Your task to perform on an android device: Search for "rayovac triple a" on walmart, select the first entry, and add it to the cart. Image 0: 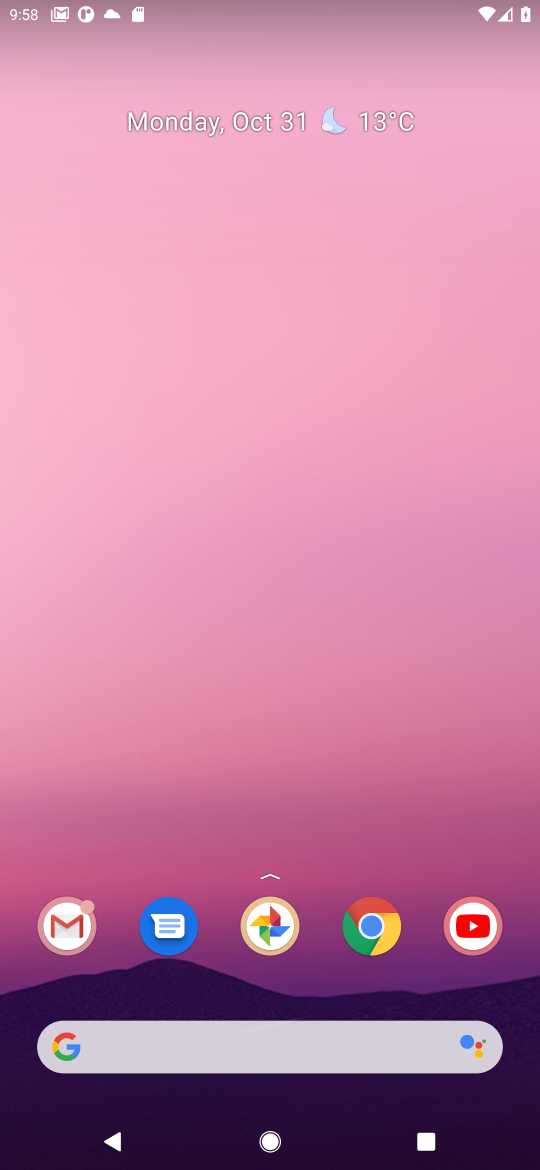
Step 0: click (378, 934)
Your task to perform on an android device: Search for "rayovac triple a" on walmart, select the first entry, and add it to the cart. Image 1: 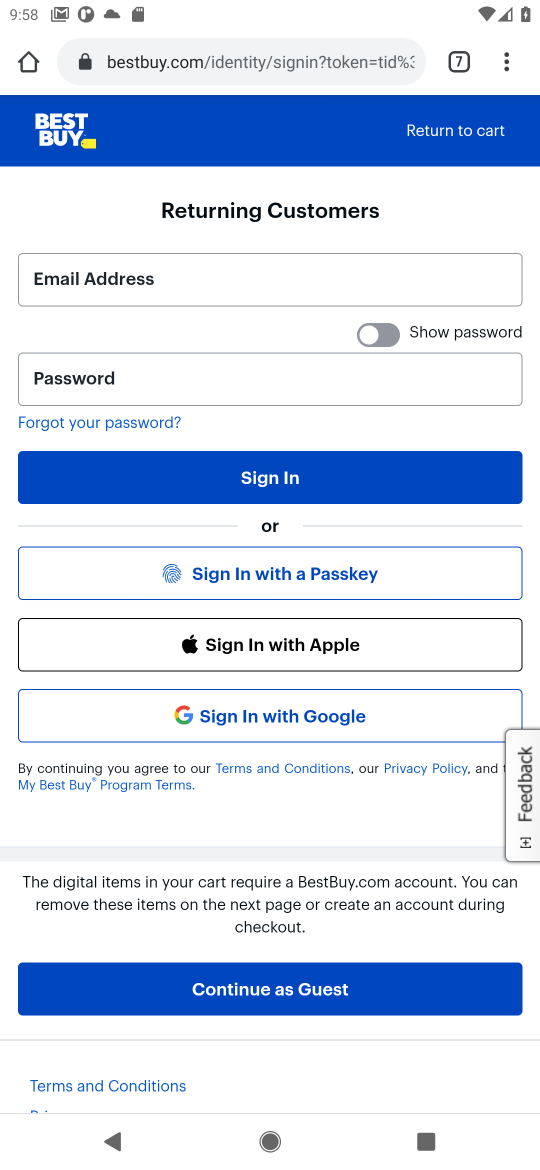
Step 1: click (461, 65)
Your task to perform on an android device: Search for "rayovac triple a" on walmart, select the first entry, and add it to the cart. Image 2: 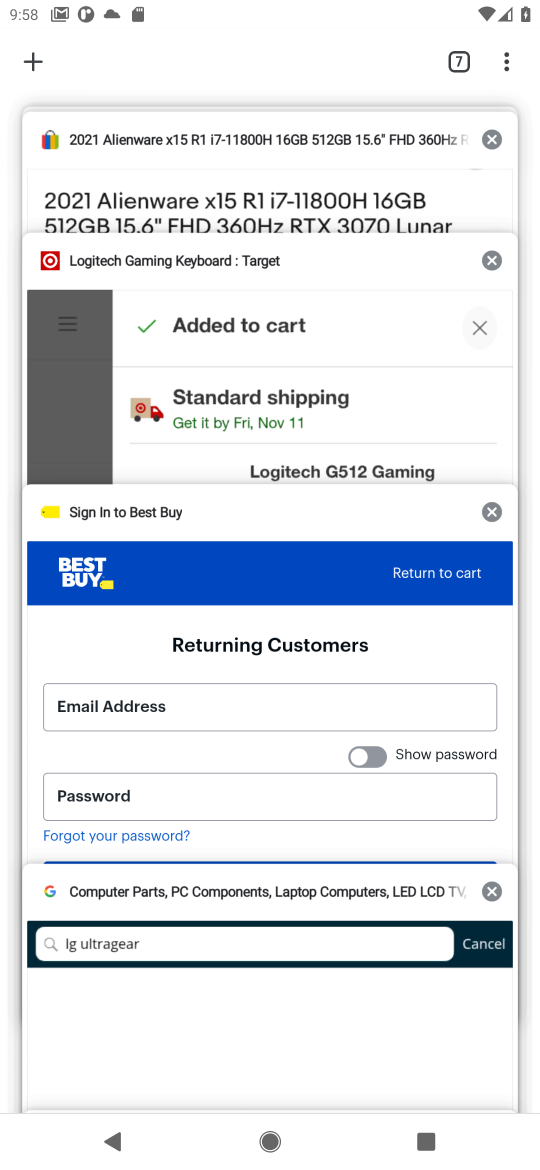
Step 2: click (181, 624)
Your task to perform on an android device: Search for "rayovac triple a" on walmart, select the first entry, and add it to the cart. Image 3: 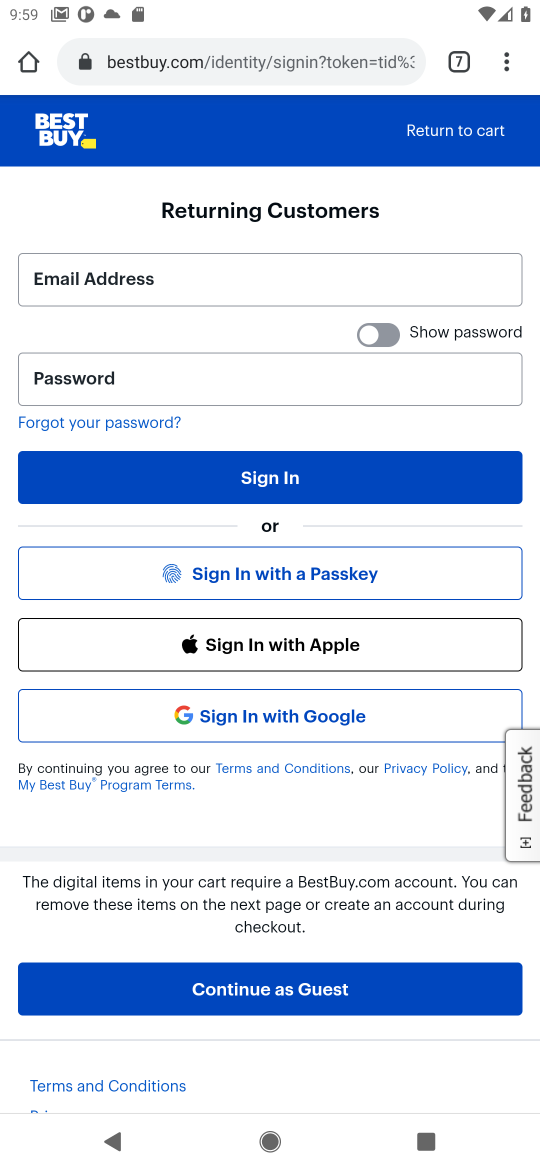
Step 3: click (462, 61)
Your task to perform on an android device: Search for "rayovac triple a" on walmart, select the first entry, and add it to the cart. Image 4: 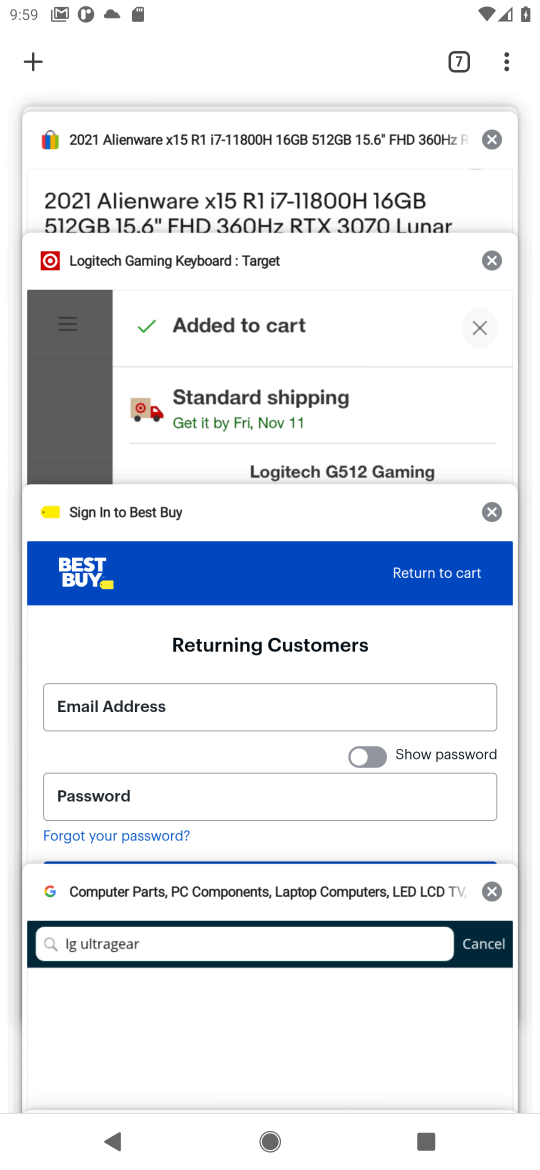
Step 4: drag from (291, 183) to (297, 630)
Your task to perform on an android device: Search for "rayovac triple a" on walmart, select the first entry, and add it to the cart. Image 5: 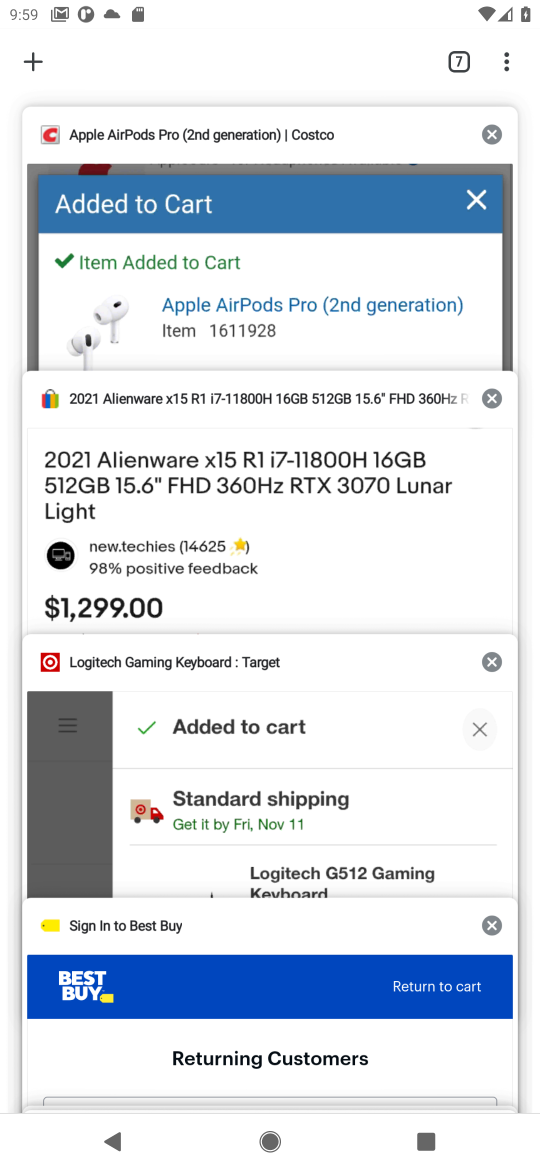
Step 5: click (31, 61)
Your task to perform on an android device: Search for "rayovac triple a" on walmart, select the first entry, and add it to the cart. Image 6: 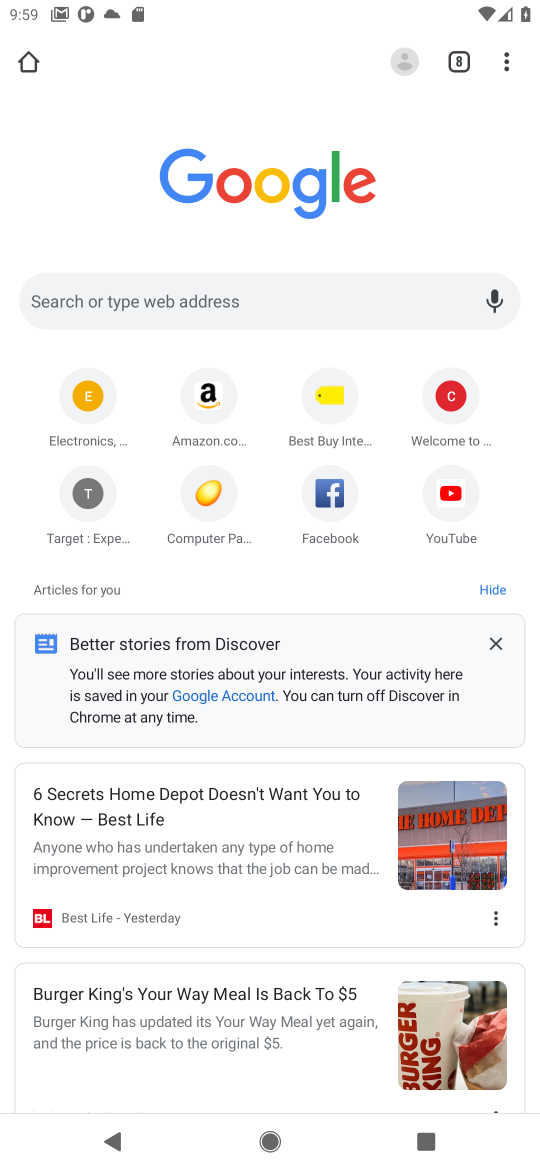
Step 6: click (107, 301)
Your task to perform on an android device: Search for "rayovac triple a" on walmart, select the first entry, and add it to the cart. Image 7: 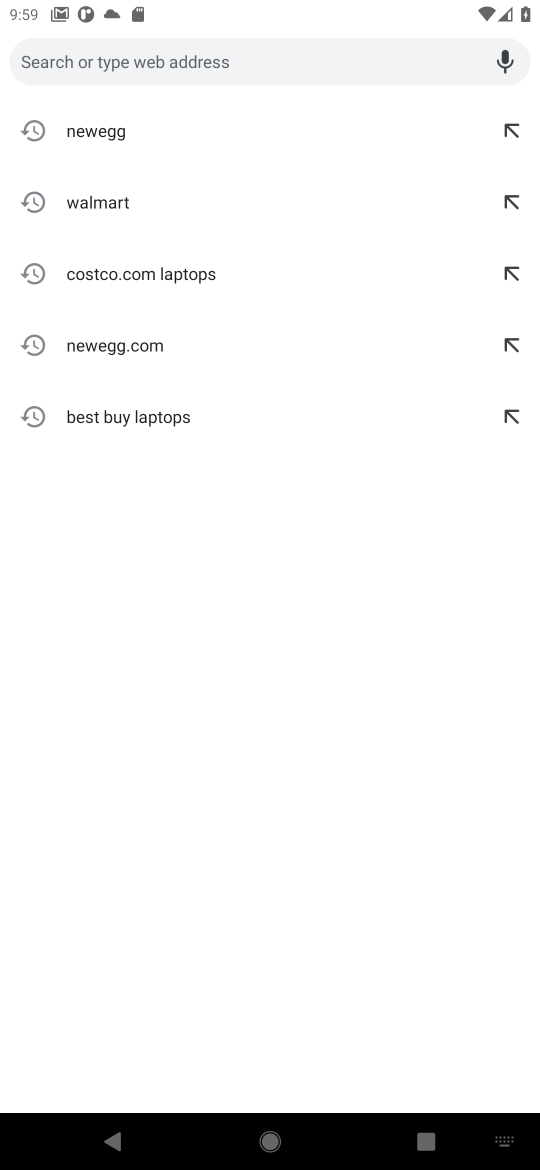
Step 7: click (105, 207)
Your task to perform on an android device: Search for "rayovac triple a" on walmart, select the first entry, and add it to the cart. Image 8: 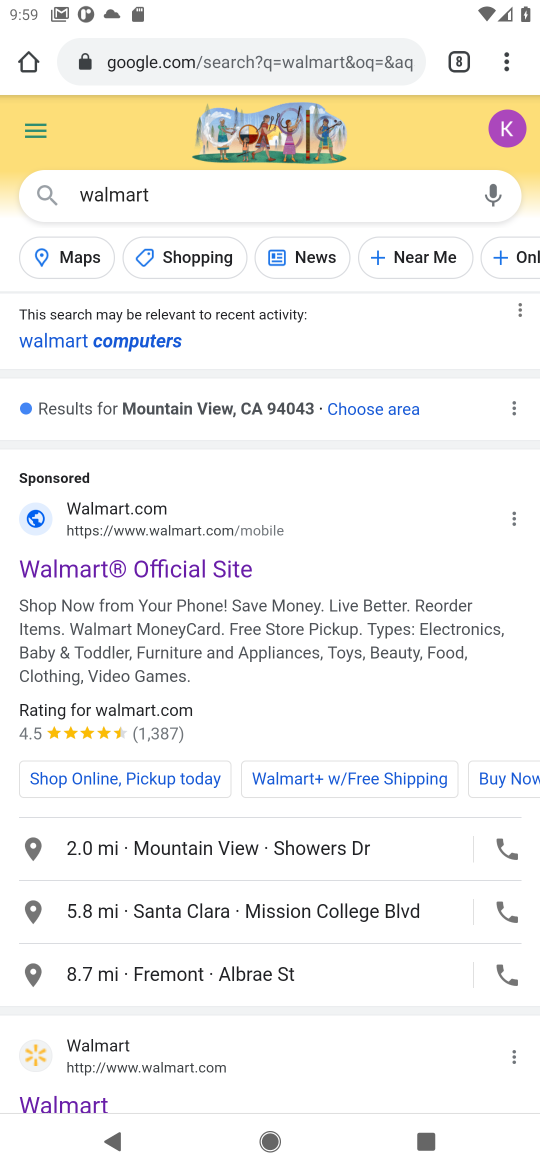
Step 8: click (65, 1099)
Your task to perform on an android device: Search for "rayovac triple a" on walmart, select the first entry, and add it to the cart. Image 9: 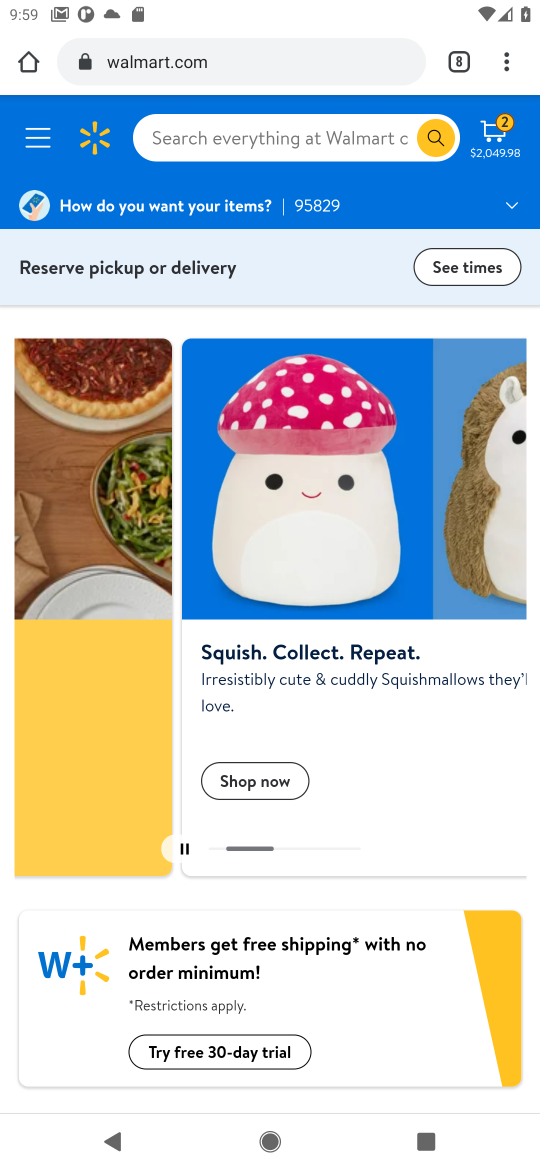
Step 9: click (346, 137)
Your task to perform on an android device: Search for "rayovac triple a" on walmart, select the first entry, and add it to the cart. Image 10: 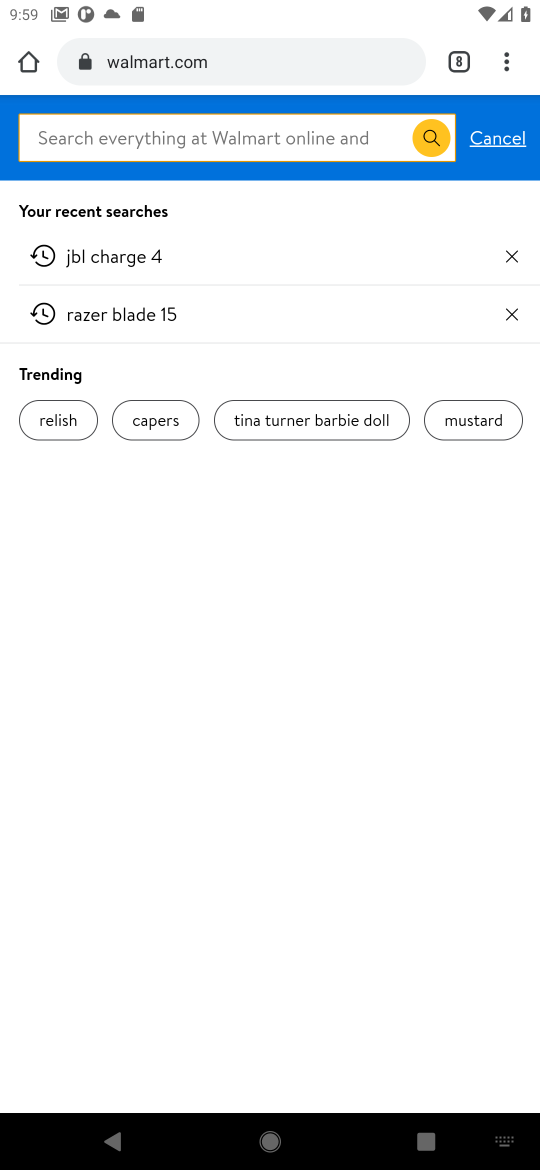
Step 10: type "rayovac triple a"
Your task to perform on an android device: Search for "rayovac triple a" on walmart, select the first entry, and add it to the cart. Image 11: 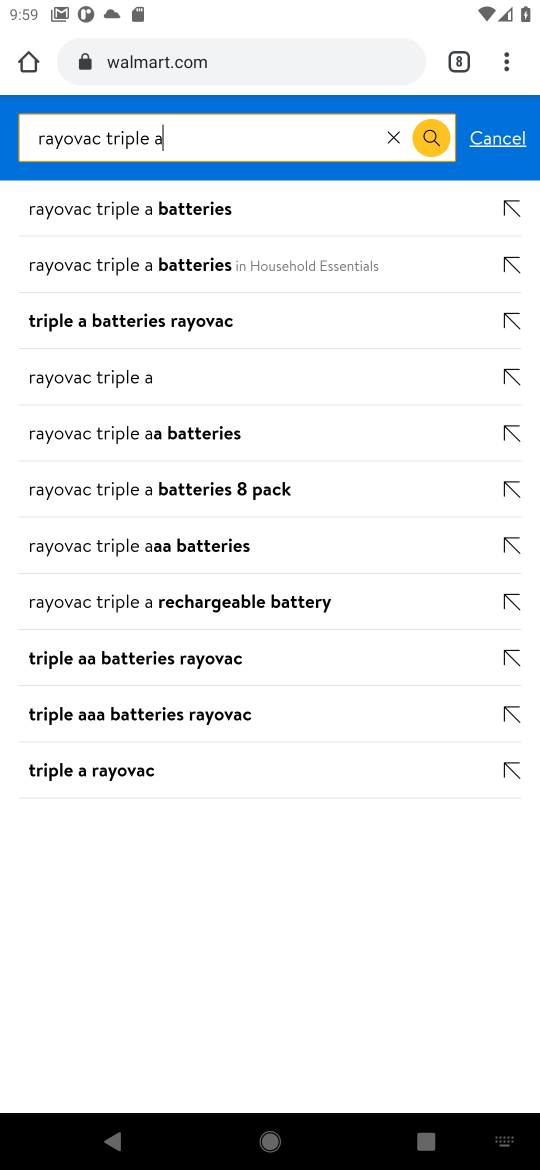
Step 11: click (203, 265)
Your task to perform on an android device: Search for "rayovac triple a" on walmart, select the first entry, and add it to the cart. Image 12: 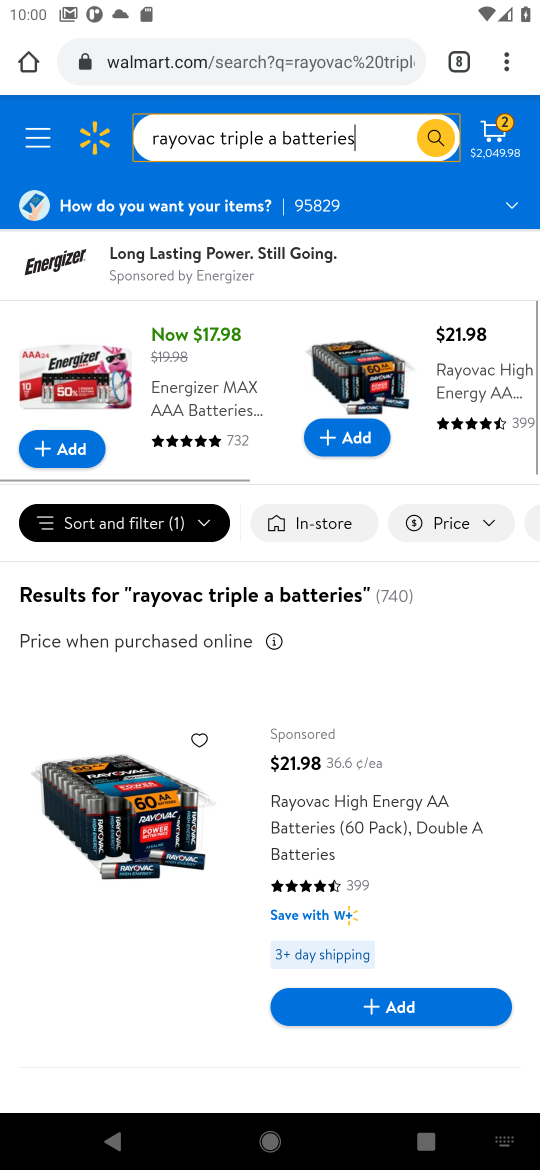
Step 12: click (375, 1002)
Your task to perform on an android device: Search for "rayovac triple a" on walmart, select the first entry, and add it to the cart. Image 13: 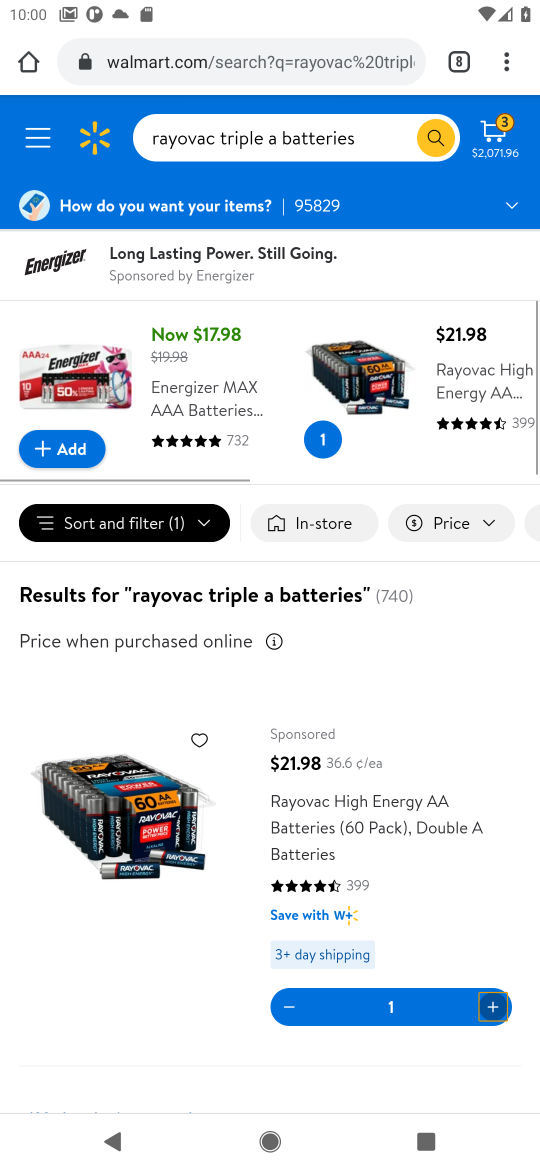
Step 13: task complete